Your task to perform on an android device: make emails show in primary in the gmail app Image 0: 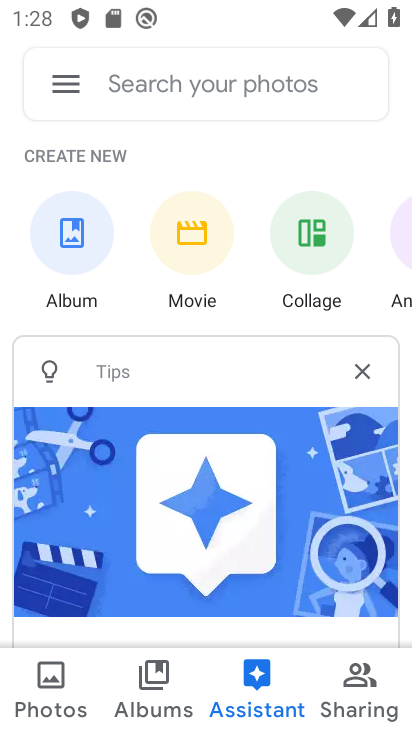
Step 0: click (54, 84)
Your task to perform on an android device: make emails show in primary in the gmail app Image 1: 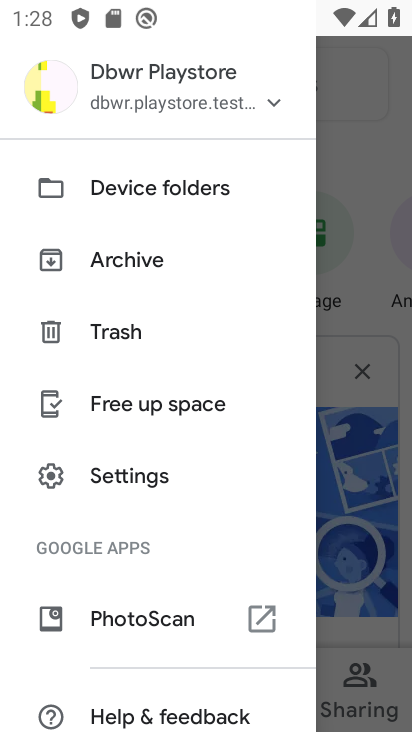
Step 1: drag from (94, 457) to (187, 37)
Your task to perform on an android device: make emails show in primary in the gmail app Image 2: 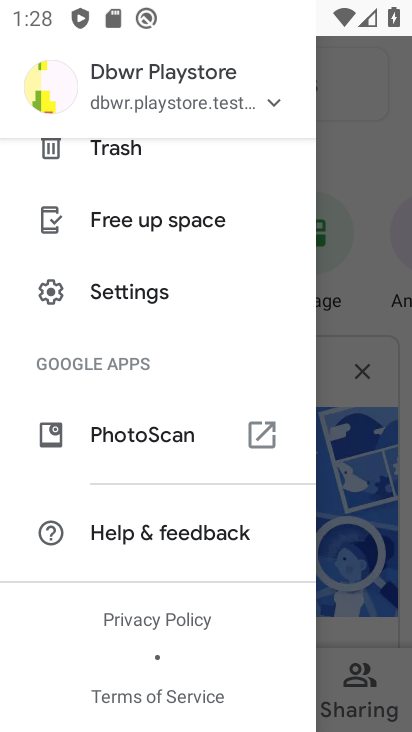
Step 2: drag from (193, 269) to (219, 730)
Your task to perform on an android device: make emails show in primary in the gmail app Image 3: 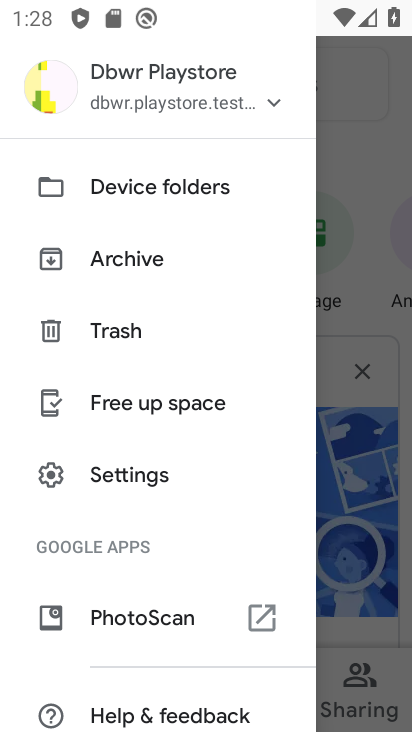
Step 3: click (151, 471)
Your task to perform on an android device: make emails show in primary in the gmail app Image 4: 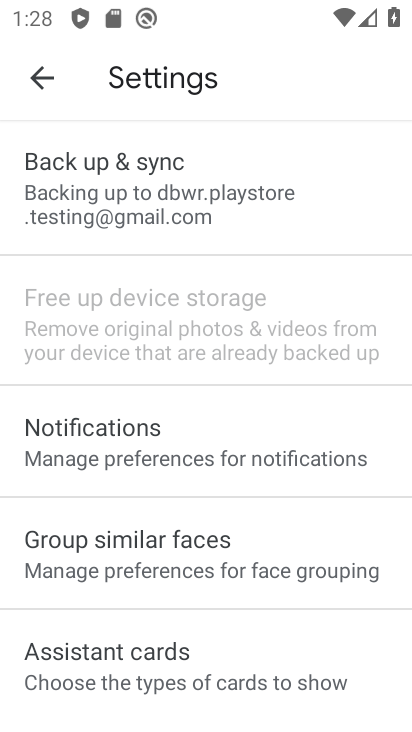
Step 4: drag from (176, 252) to (278, 728)
Your task to perform on an android device: make emails show in primary in the gmail app Image 5: 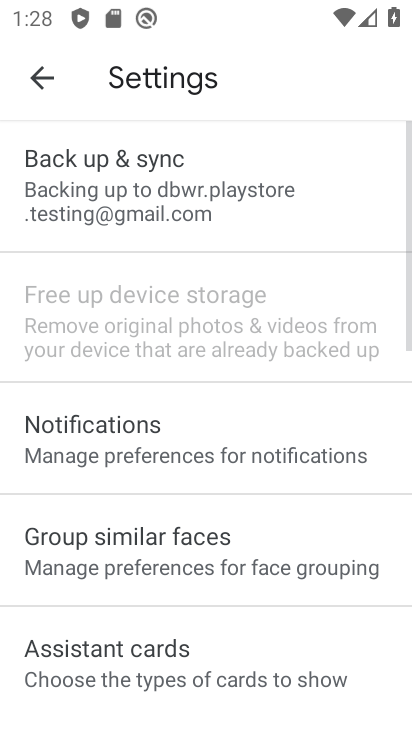
Step 5: drag from (220, 273) to (254, 647)
Your task to perform on an android device: make emails show in primary in the gmail app Image 6: 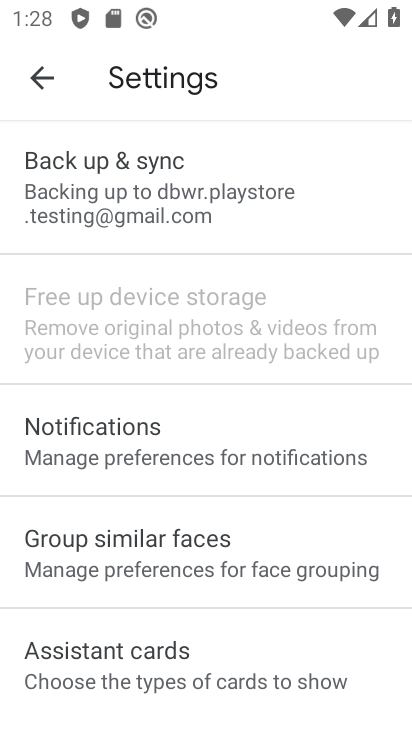
Step 6: click (56, 75)
Your task to perform on an android device: make emails show in primary in the gmail app Image 7: 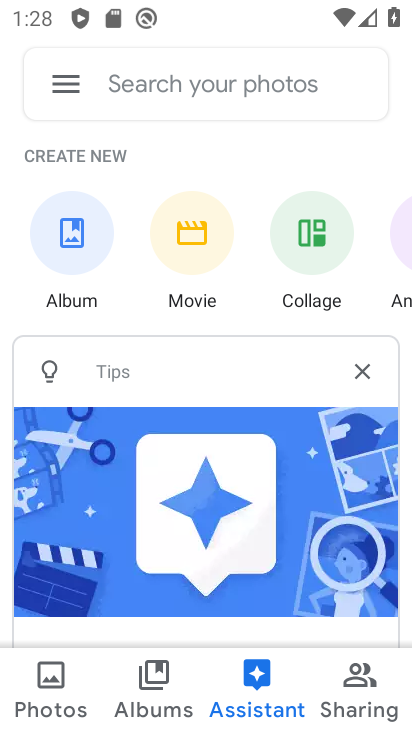
Step 7: press home button
Your task to perform on an android device: make emails show in primary in the gmail app Image 8: 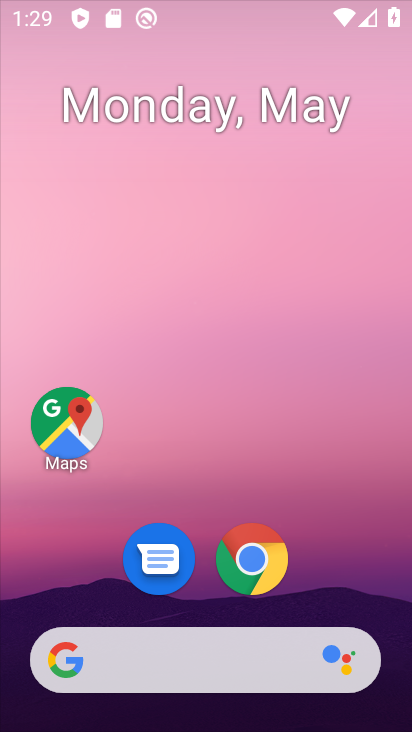
Step 8: drag from (357, 523) to (327, 36)
Your task to perform on an android device: make emails show in primary in the gmail app Image 9: 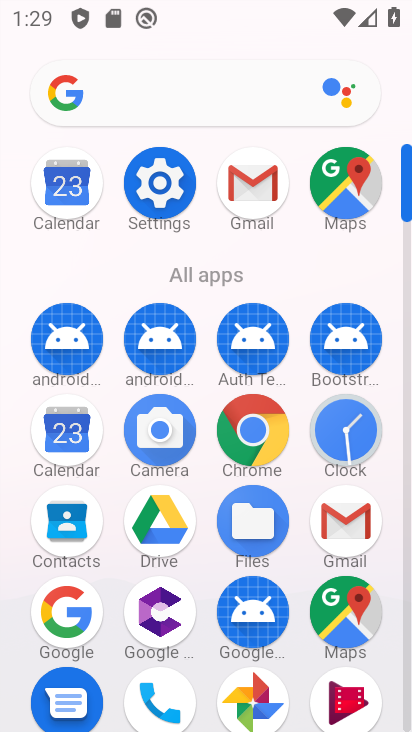
Step 9: click (359, 543)
Your task to perform on an android device: make emails show in primary in the gmail app Image 10: 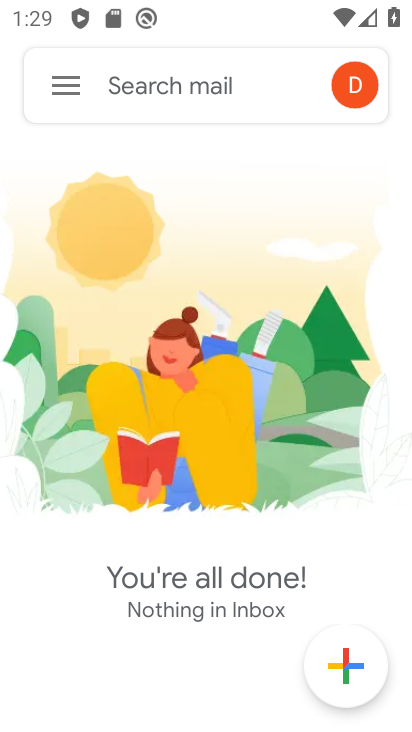
Step 10: click (63, 80)
Your task to perform on an android device: make emails show in primary in the gmail app Image 11: 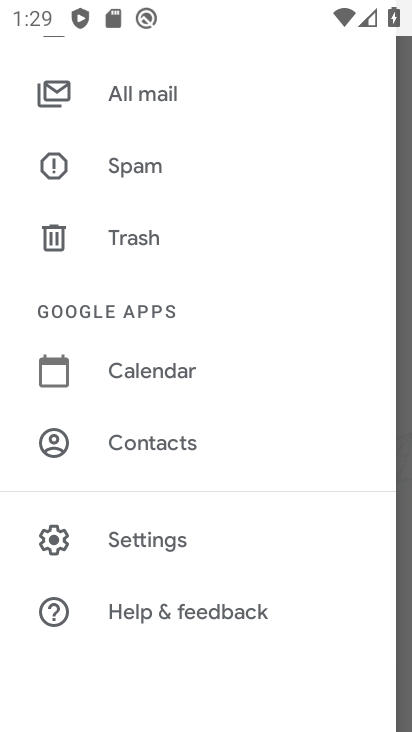
Step 11: click (221, 550)
Your task to perform on an android device: make emails show in primary in the gmail app Image 12: 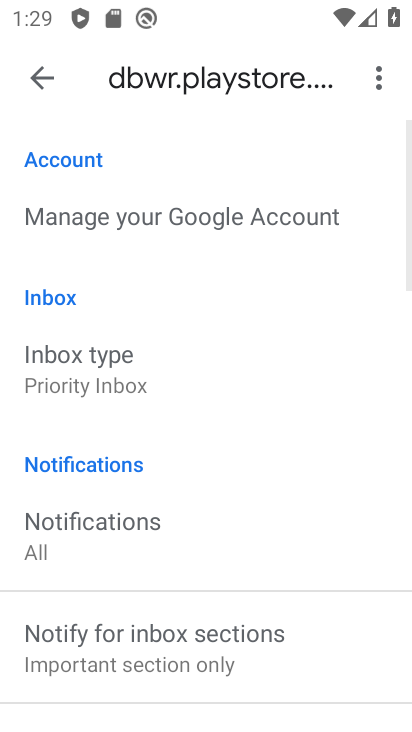
Step 12: click (108, 355)
Your task to perform on an android device: make emails show in primary in the gmail app Image 13: 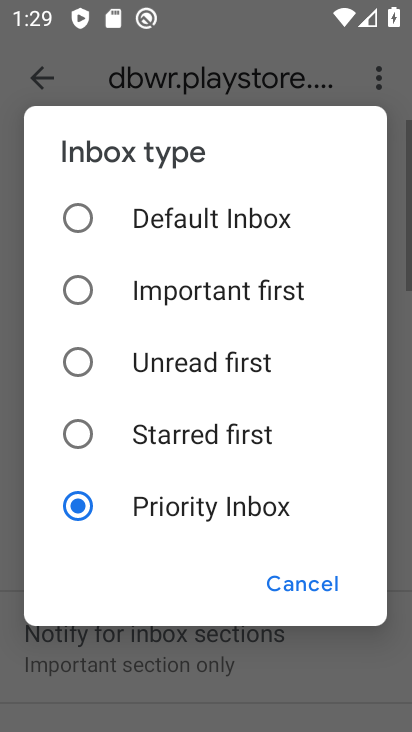
Step 13: click (170, 223)
Your task to perform on an android device: make emails show in primary in the gmail app Image 14: 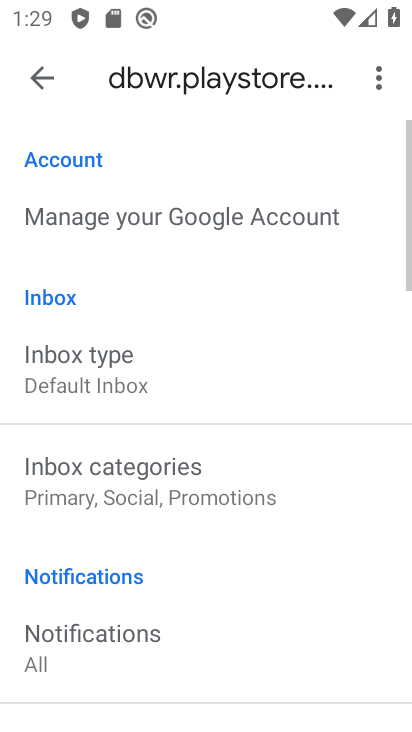
Step 14: click (184, 509)
Your task to perform on an android device: make emails show in primary in the gmail app Image 15: 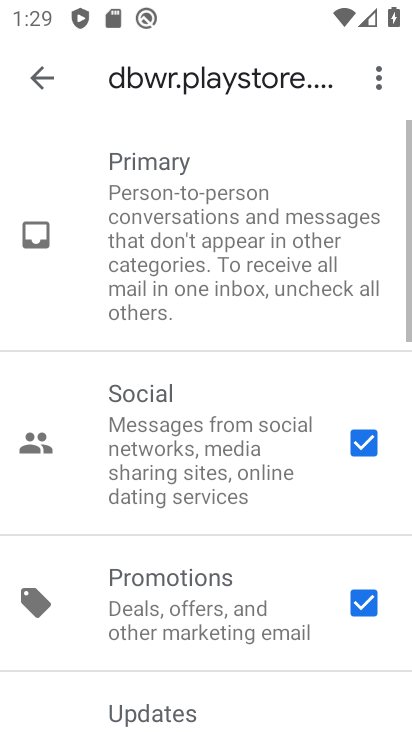
Step 15: task complete